Your task to perform on an android device: Open calendar and show me the third week of next month Image 0: 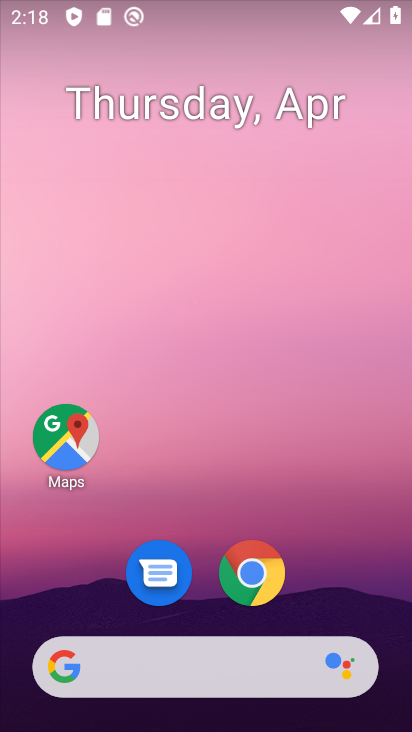
Step 0: drag from (347, 606) to (297, 198)
Your task to perform on an android device: Open calendar and show me the third week of next month Image 1: 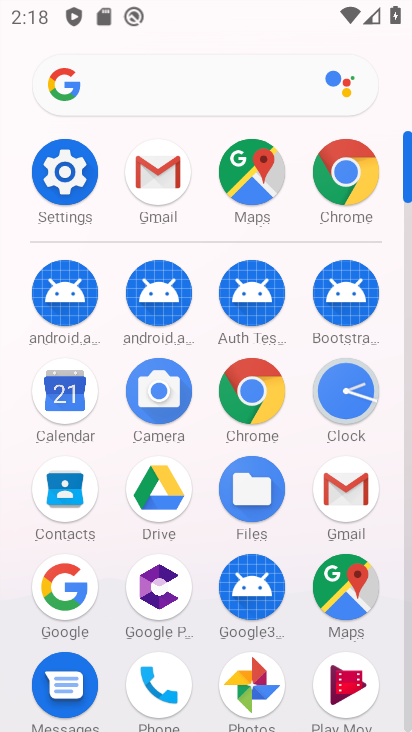
Step 1: click (52, 402)
Your task to perform on an android device: Open calendar and show me the third week of next month Image 2: 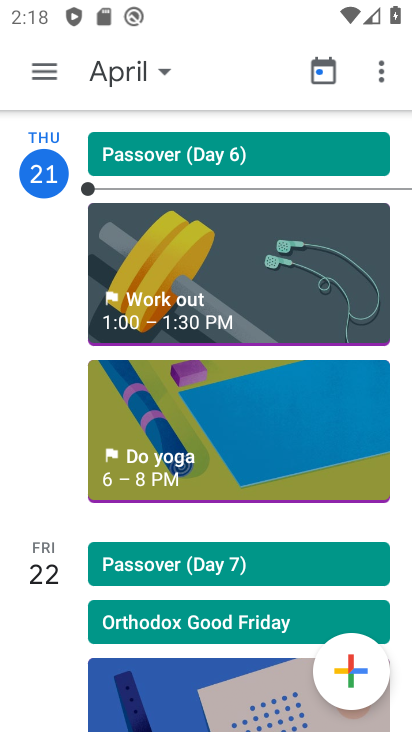
Step 2: click (123, 81)
Your task to perform on an android device: Open calendar and show me the third week of next month Image 3: 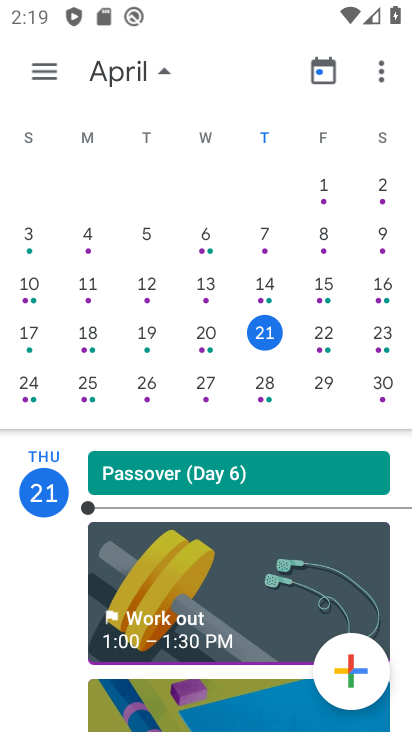
Step 3: drag from (356, 298) to (7, 254)
Your task to perform on an android device: Open calendar and show me the third week of next month Image 4: 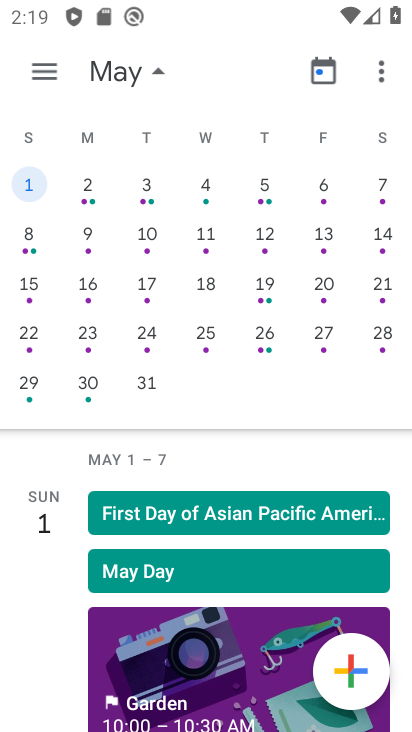
Step 4: click (267, 290)
Your task to perform on an android device: Open calendar and show me the third week of next month Image 5: 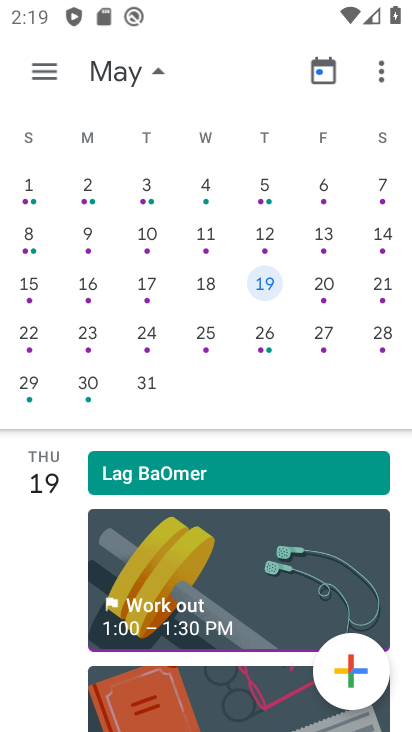
Step 5: task complete